Your task to perform on an android device: set the timer Image 0: 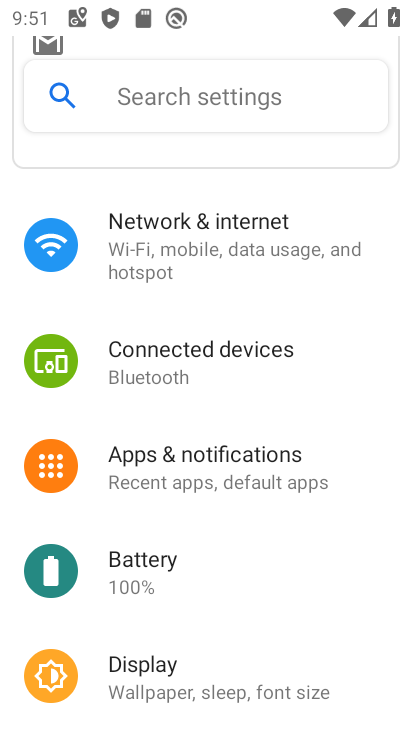
Step 0: press home button
Your task to perform on an android device: set the timer Image 1: 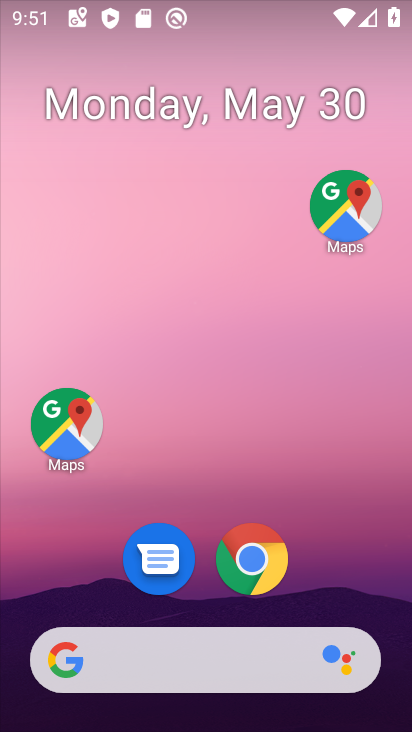
Step 1: drag from (339, 593) to (300, 63)
Your task to perform on an android device: set the timer Image 2: 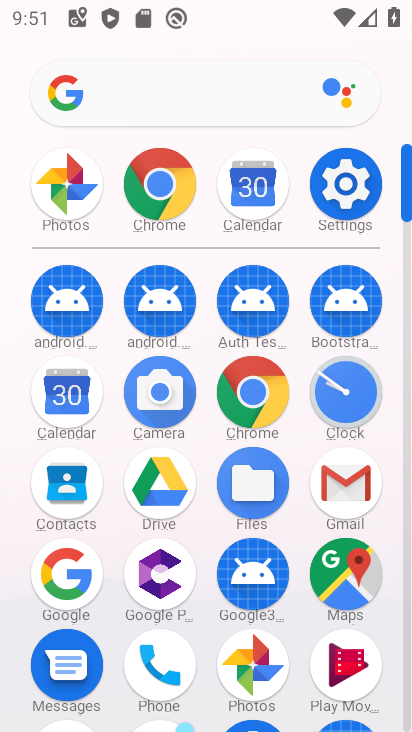
Step 2: click (345, 401)
Your task to perform on an android device: set the timer Image 3: 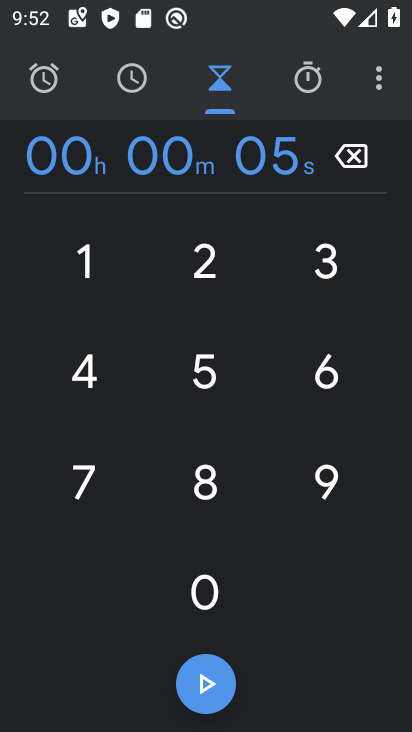
Step 3: task complete